Your task to perform on an android device: toggle location history Image 0: 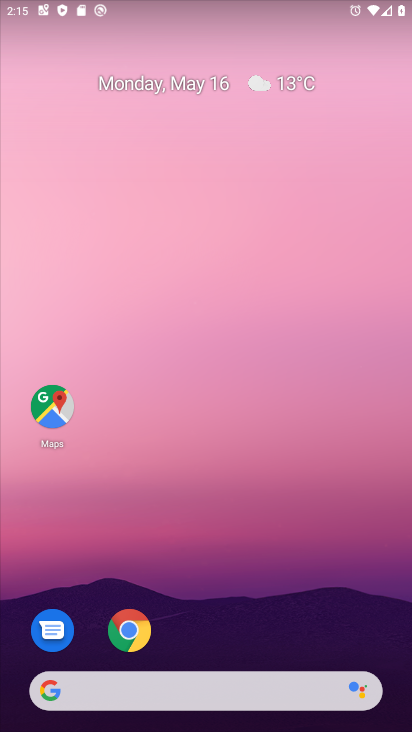
Step 0: drag from (187, 632) to (229, 208)
Your task to perform on an android device: toggle location history Image 1: 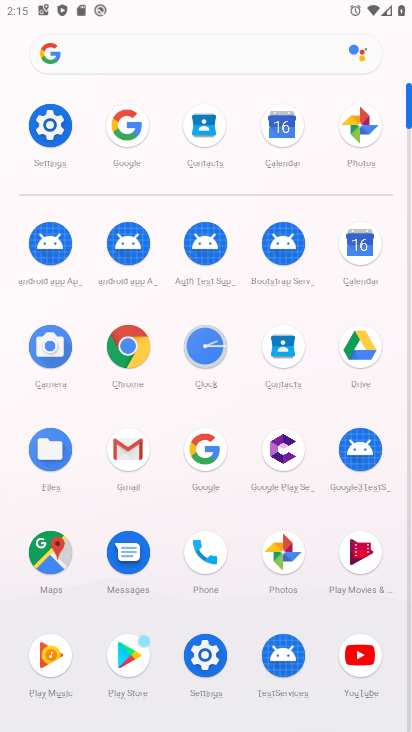
Step 1: click (42, 119)
Your task to perform on an android device: toggle location history Image 2: 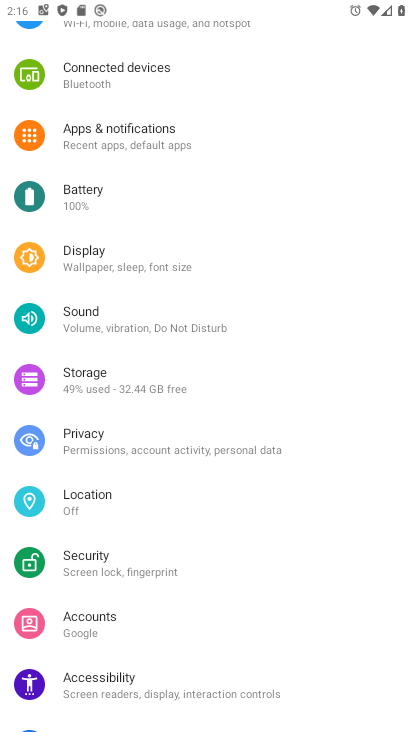
Step 2: click (75, 496)
Your task to perform on an android device: toggle location history Image 3: 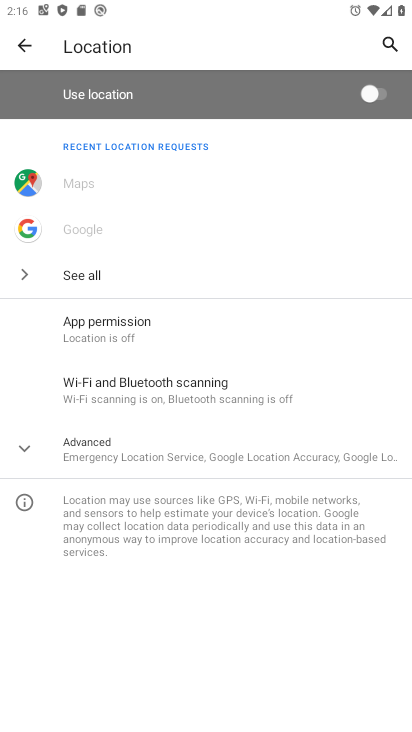
Step 3: click (177, 447)
Your task to perform on an android device: toggle location history Image 4: 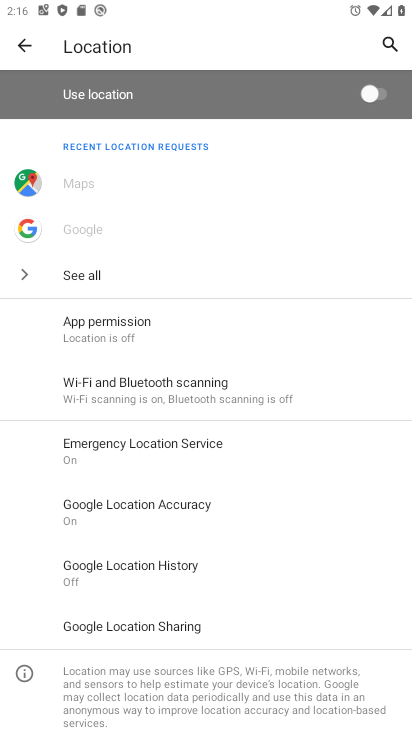
Step 4: click (206, 563)
Your task to perform on an android device: toggle location history Image 5: 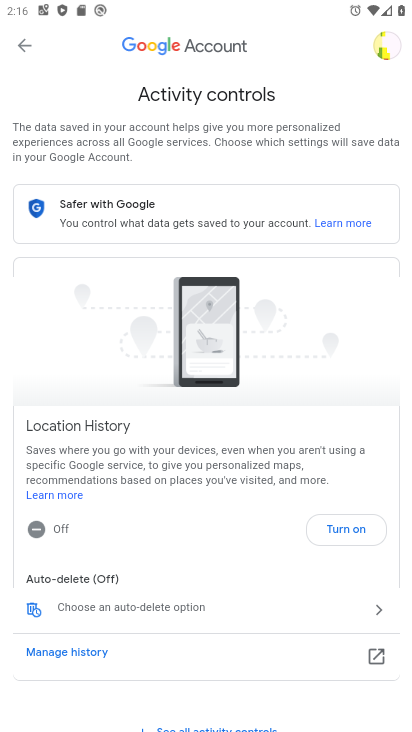
Step 5: click (352, 530)
Your task to perform on an android device: toggle location history Image 6: 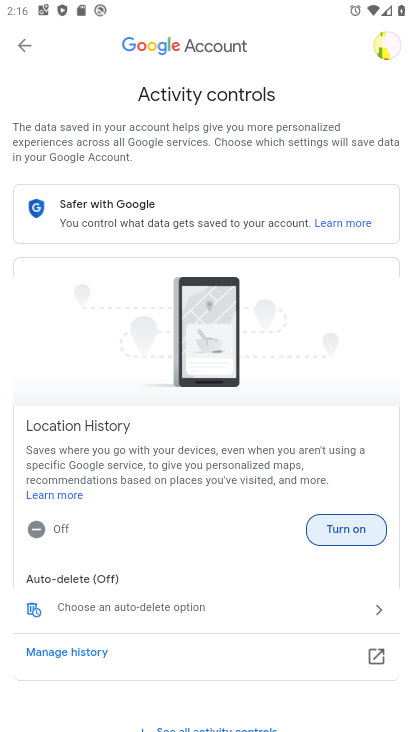
Step 6: click (352, 530)
Your task to perform on an android device: toggle location history Image 7: 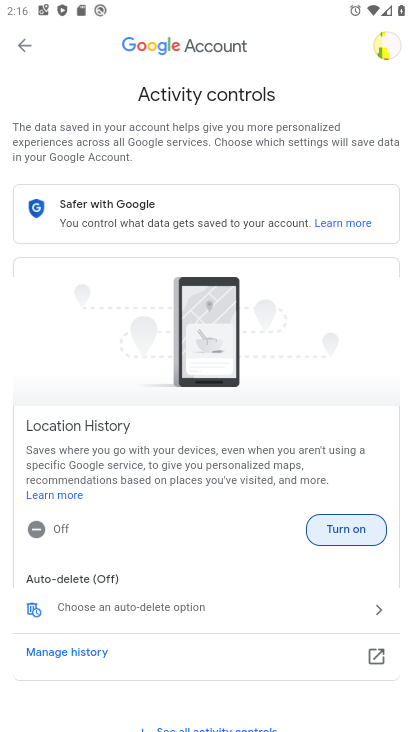
Step 7: click (352, 530)
Your task to perform on an android device: toggle location history Image 8: 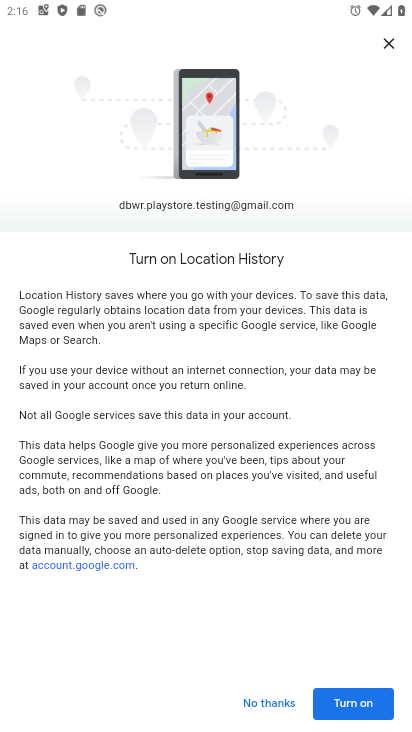
Step 8: click (339, 698)
Your task to perform on an android device: toggle location history Image 9: 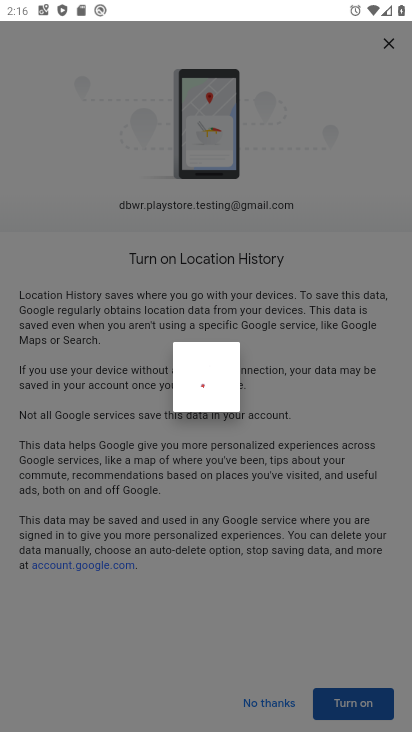
Step 9: click (339, 698)
Your task to perform on an android device: toggle location history Image 10: 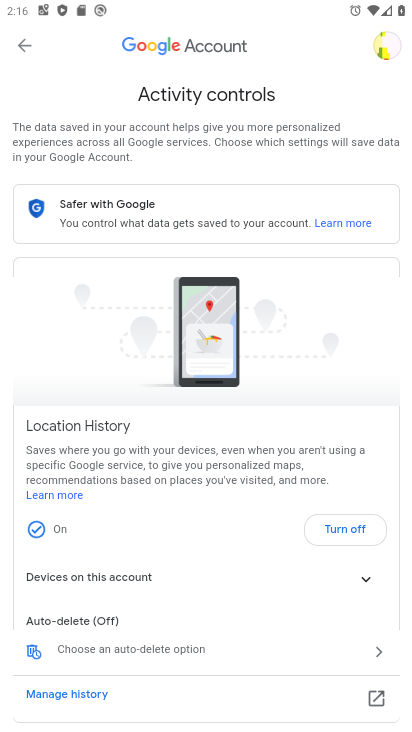
Step 10: task complete